Your task to perform on an android device: When is my next appointment? Image 0: 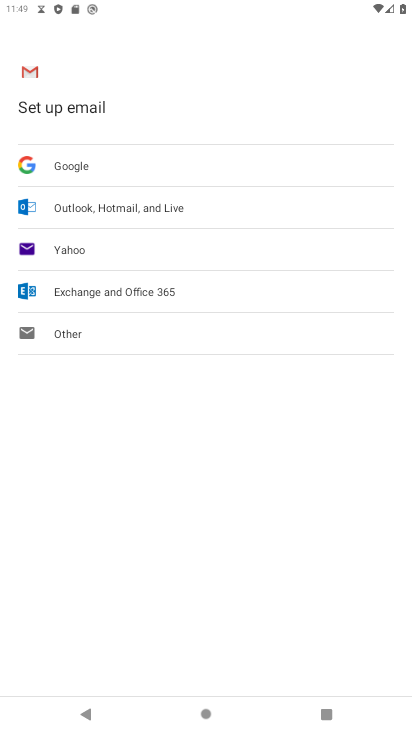
Step 0: press home button
Your task to perform on an android device: When is my next appointment? Image 1: 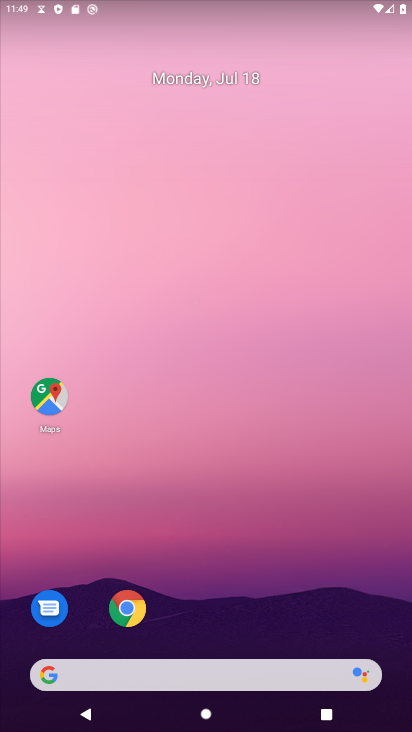
Step 1: drag from (209, 610) to (197, 109)
Your task to perform on an android device: When is my next appointment? Image 2: 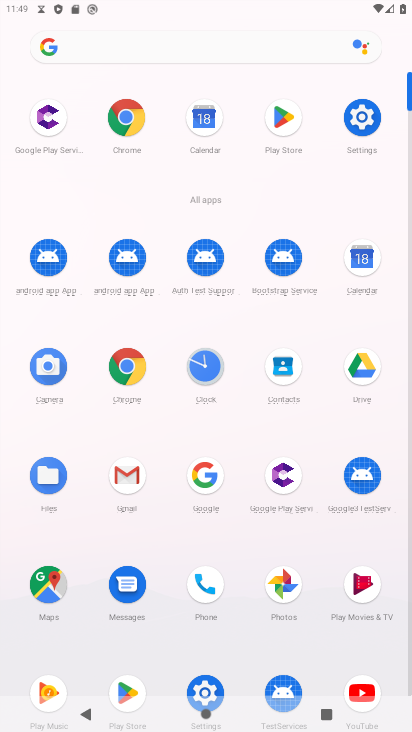
Step 2: click (355, 261)
Your task to perform on an android device: When is my next appointment? Image 3: 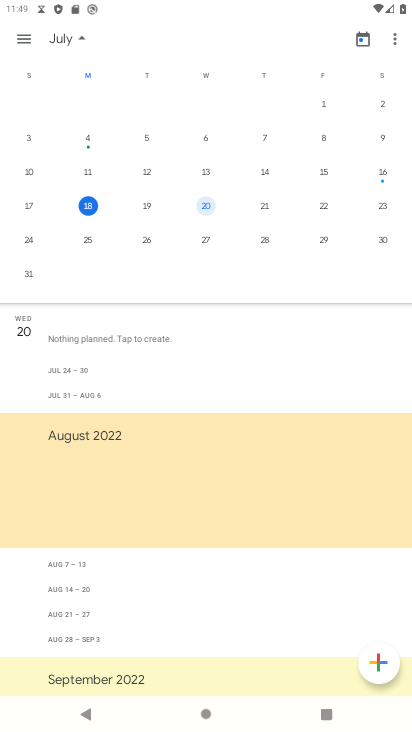
Step 3: click (274, 187)
Your task to perform on an android device: When is my next appointment? Image 4: 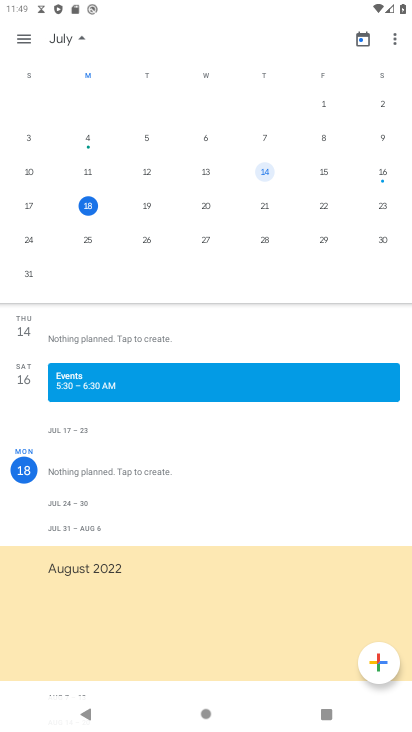
Step 4: click (200, 213)
Your task to perform on an android device: When is my next appointment? Image 5: 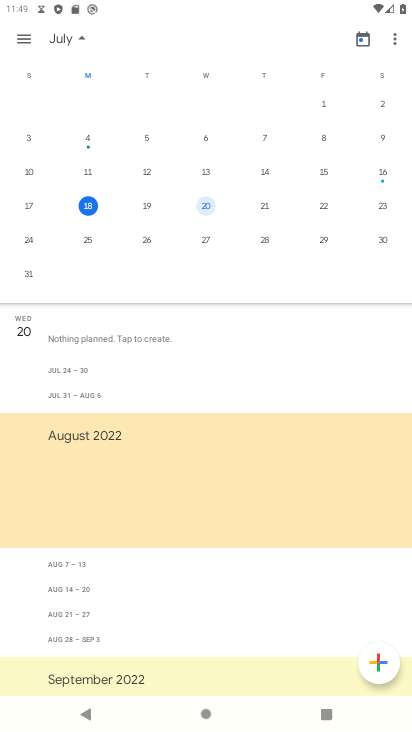
Step 5: task complete